Your task to perform on an android device: Search for vegetarian restaurants on Maps Image 0: 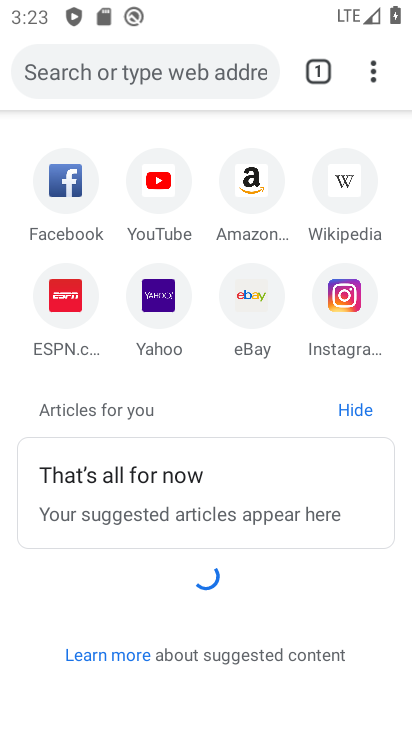
Step 0: press home button
Your task to perform on an android device: Search for vegetarian restaurants on Maps Image 1: 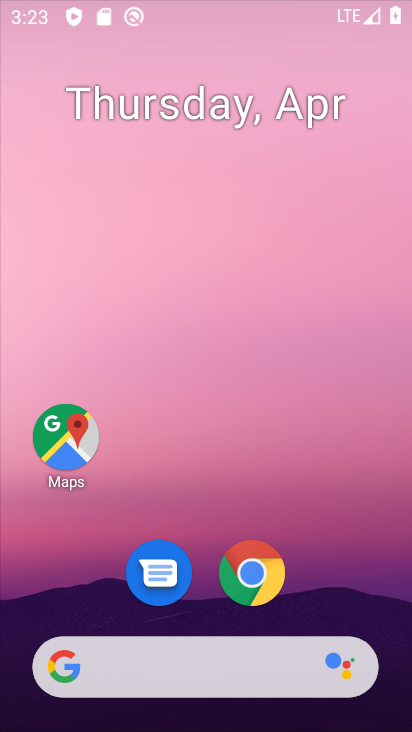
Step 1: drag from (320, 602) to (281, 59)
Your task to perform on an android device: Search for vegetarian restaurants on Maps Image 2: 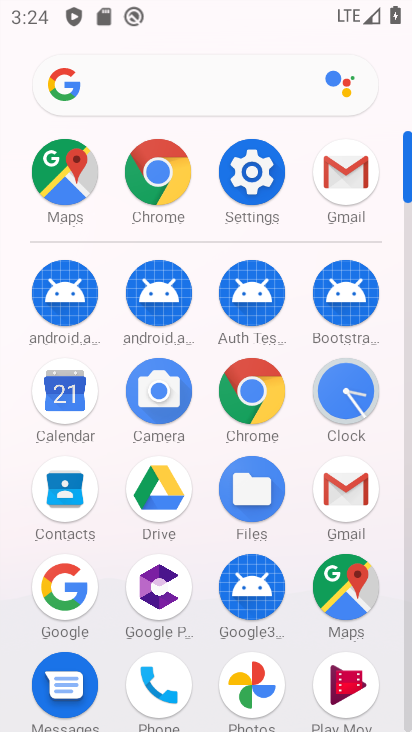
Step 2: click (352, 591)
Your task to perform on an android device: Search for vegetarian restaurants on Maps Image 3: 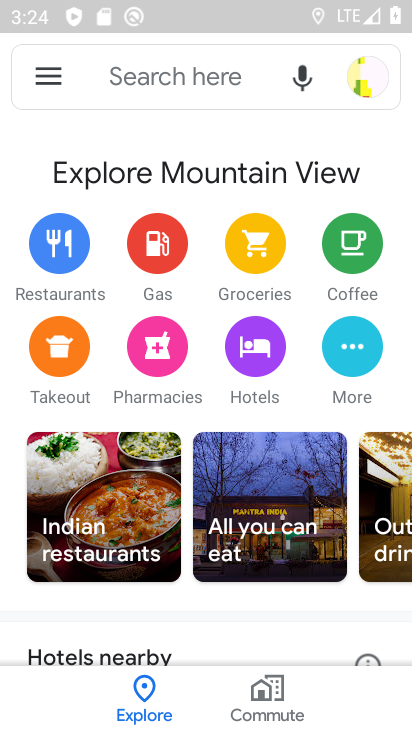
Step 3: click (192, 88)
Your task to perform on an android device: Search for vegetarian restaurants on Maps Image 4: 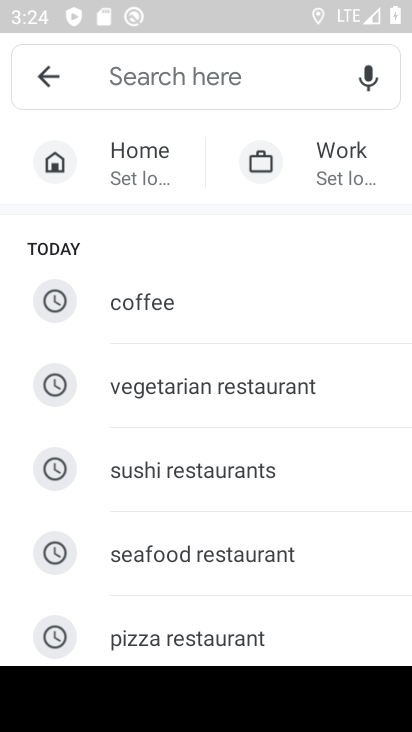
Step 4: drag from (207, 602) to (263, 475)
Your task to perform on an android device: Search for vegetarian restaurants on Maps Image 5: 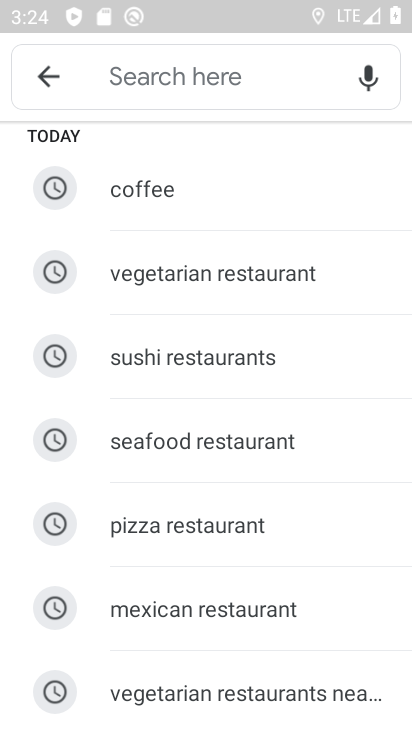
Step 5: click (167, 288)
Your task to perform on an android device: Search for vegetarian restaurants on Maps Image 6: 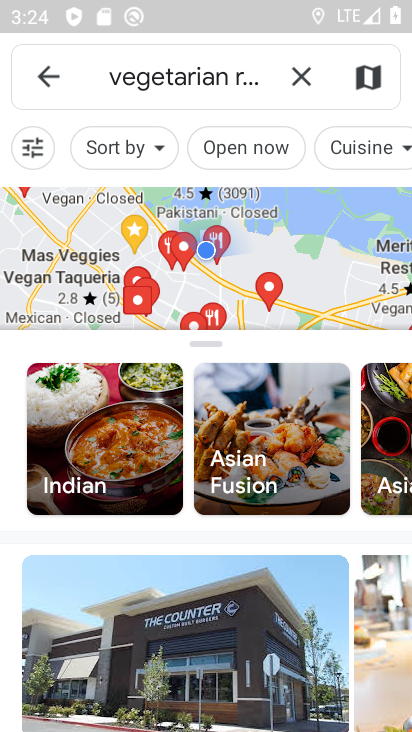
Step 6: task complete